Your task to perform on an android device: open app "Google Calendar" Image 0: 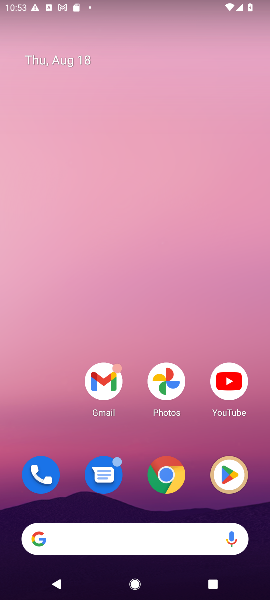
Step 0: drag from (175, 517) to (132, 57)
Your task to perform on an android device: open app "Google Calendar" Image 1: 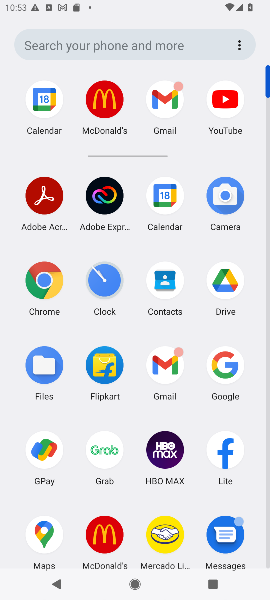
Step 1: click (168, 197)
Your task to perform on an android device: open app "Google Calendar" Image 2: 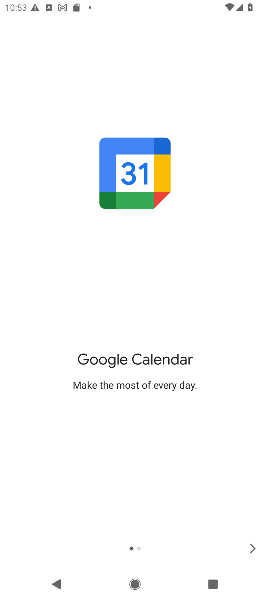
Step 2: click (247, 549)
Your task to perform on an android device: open app "Google Calendar" Image 3: 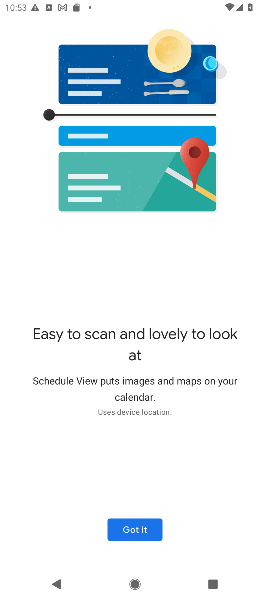
Step 3: click (148, 532)
Your task to perform on an android device: open app "Google Calendar" Image 4: 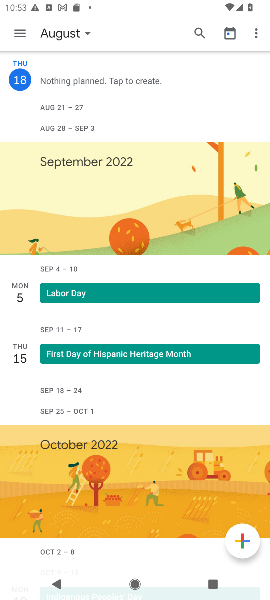
Step 4: task complete